Your task to perform on an android device: turn on bluetooth scan Image 0: 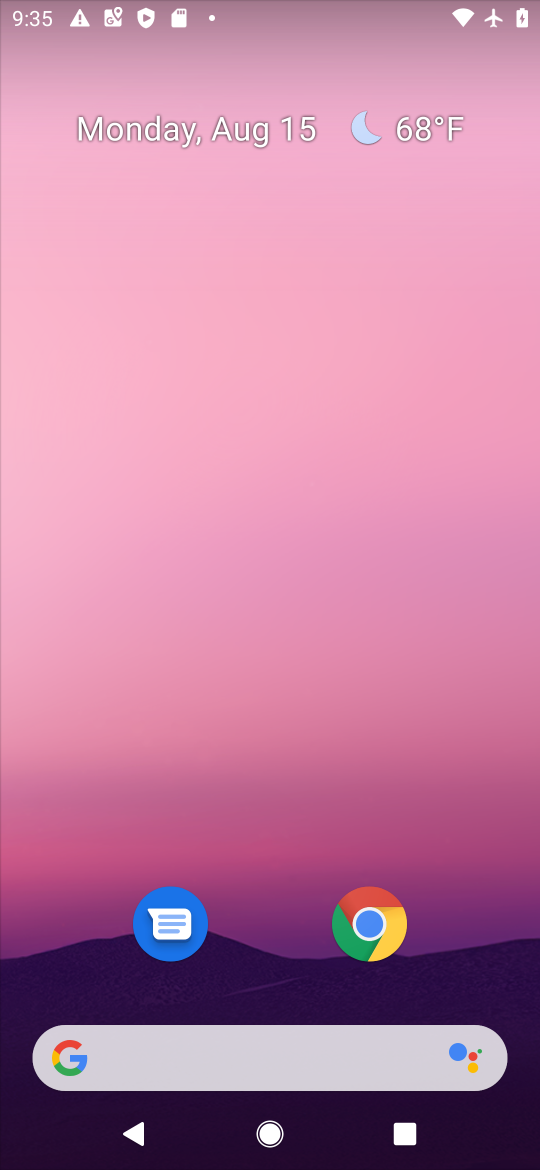
Step 0: drag from (513, 973) to (468, 183)
Your task to perform on an android device: turn on bluetooth scan Image 1: 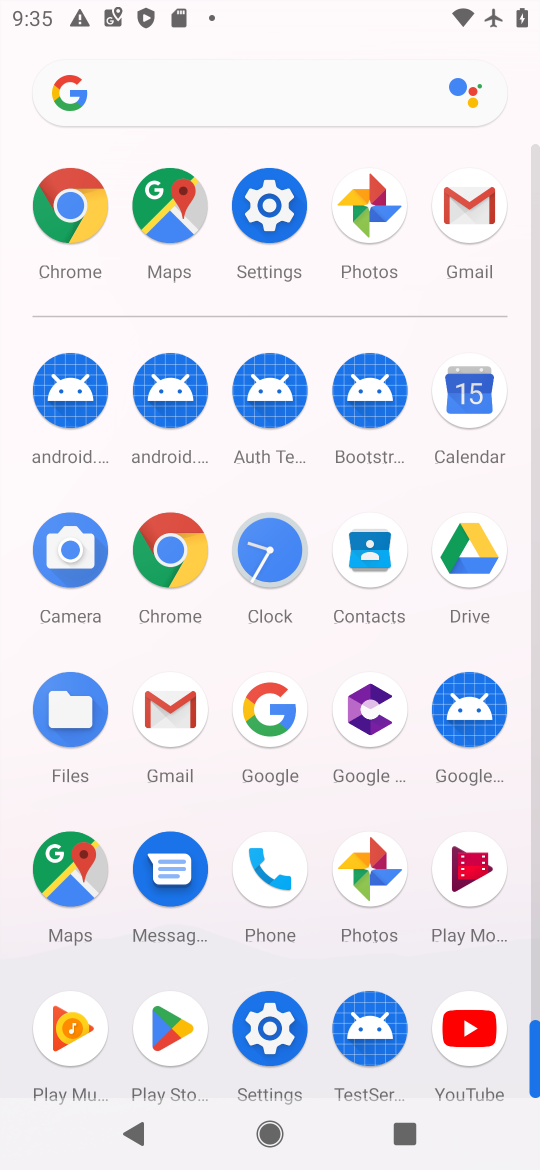
Step 1: click (272, 1029)
Your task to perform on an android device: turn on bluetooth scan Image 2: 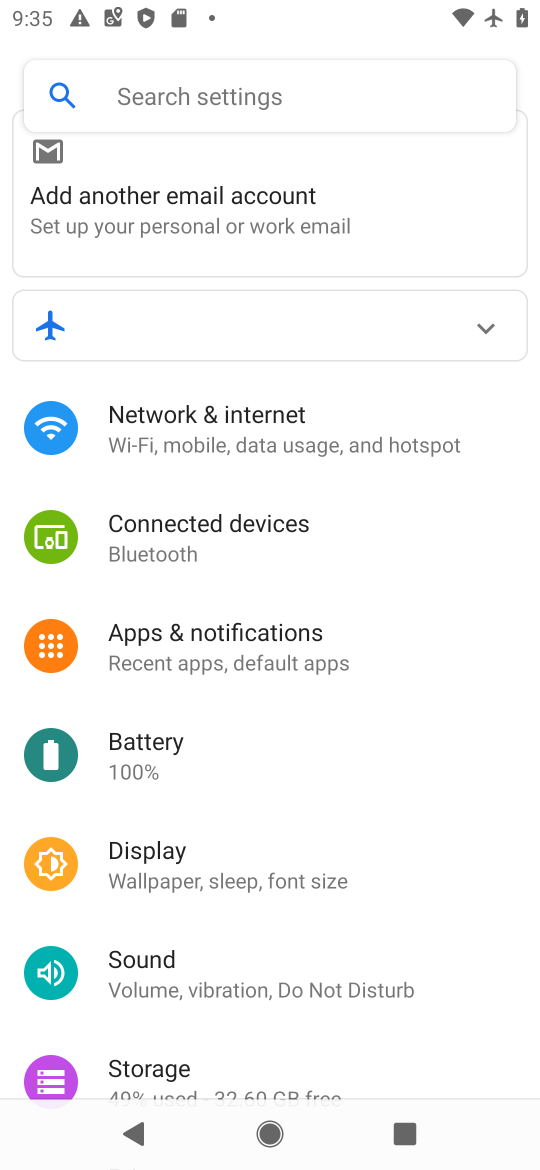
Step 2: drag from (369, 905) to (342, 549)
Your task to perform on an android device: turn on bluetooth scan Image 3: 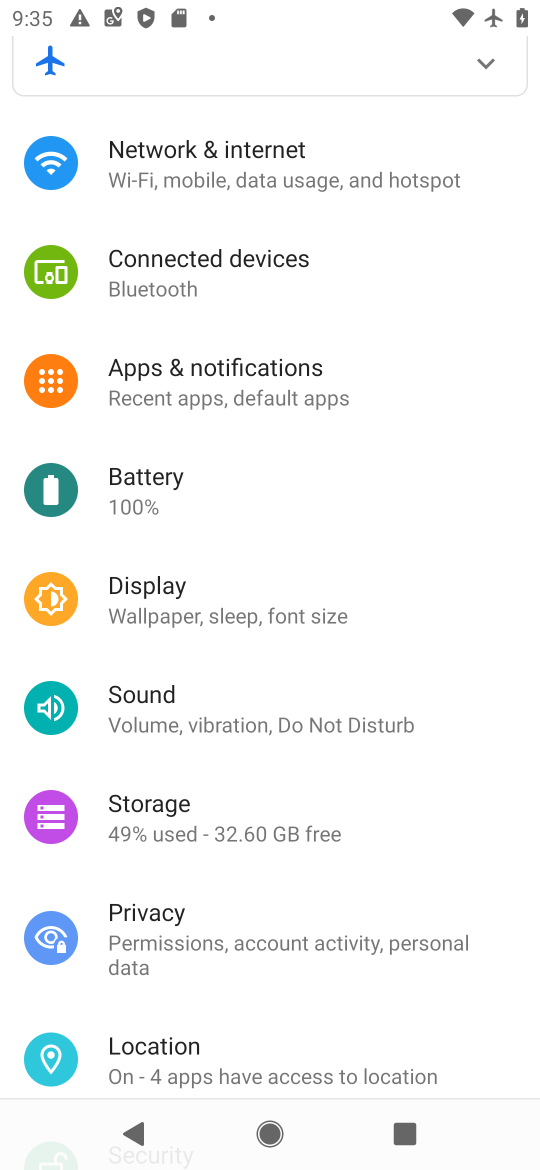
Step 3: drag from (450, 1013) to (427, 406)
Your task to perform on an android device: turn on bluetooth scan Image 4: 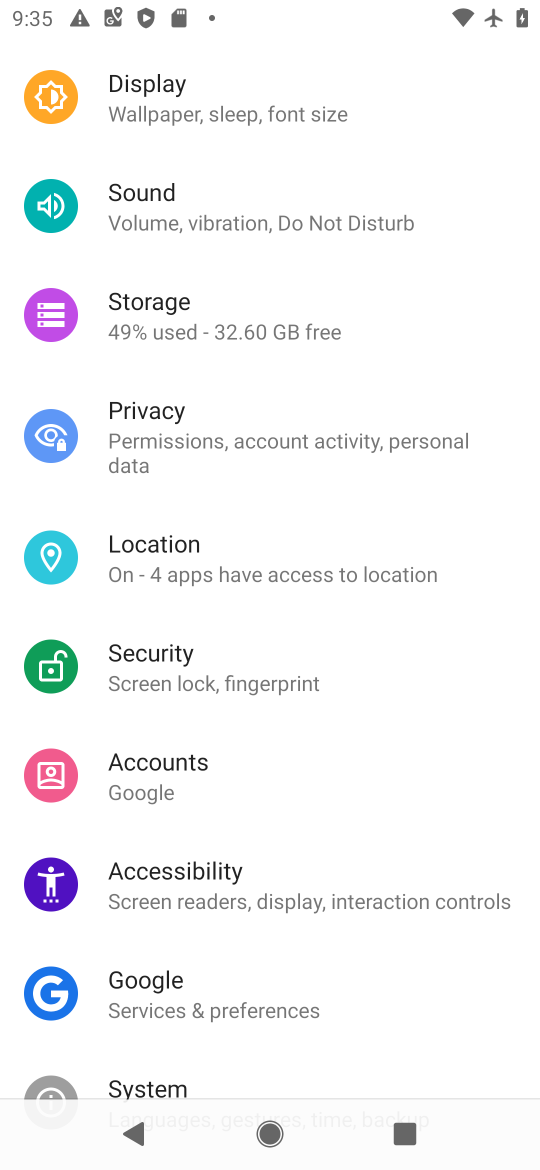
Step 4: click (145, 538)
Your task to perform on an android device: turn on bluetooth scan Image 5: 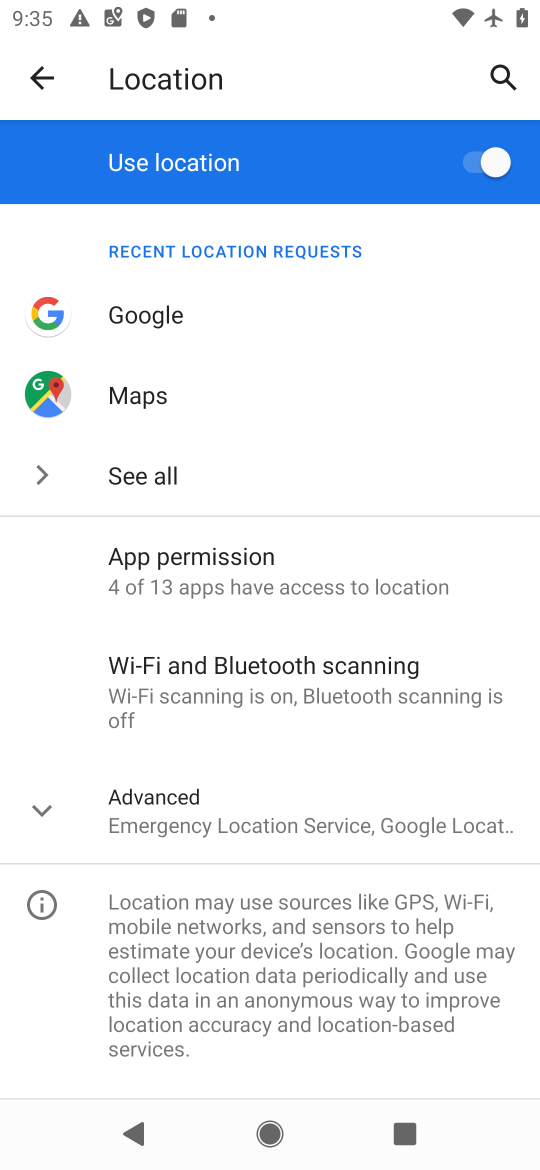
Step 5: click (38, 816)
Your task to perform on an android device: turn on bluetooth scan Image 6: 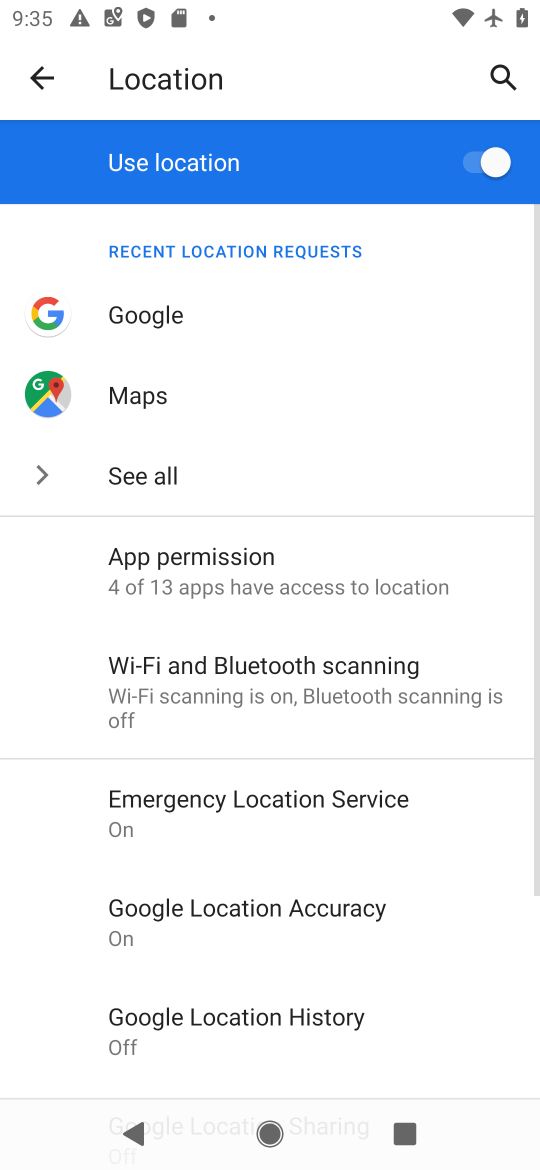
Step 6: click (251, 666)
Your task to perform on an android device: turn on bluetooth scan Image 7: 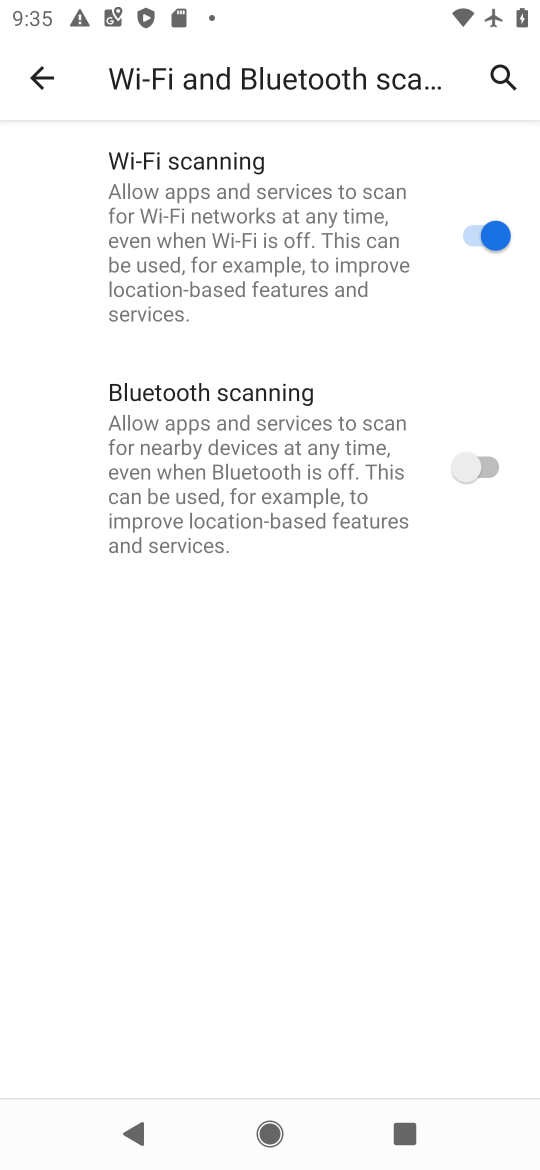
Step 7: click (488, 463)
Your task to perform on an android device: turn on bluetooth scan Image 8: 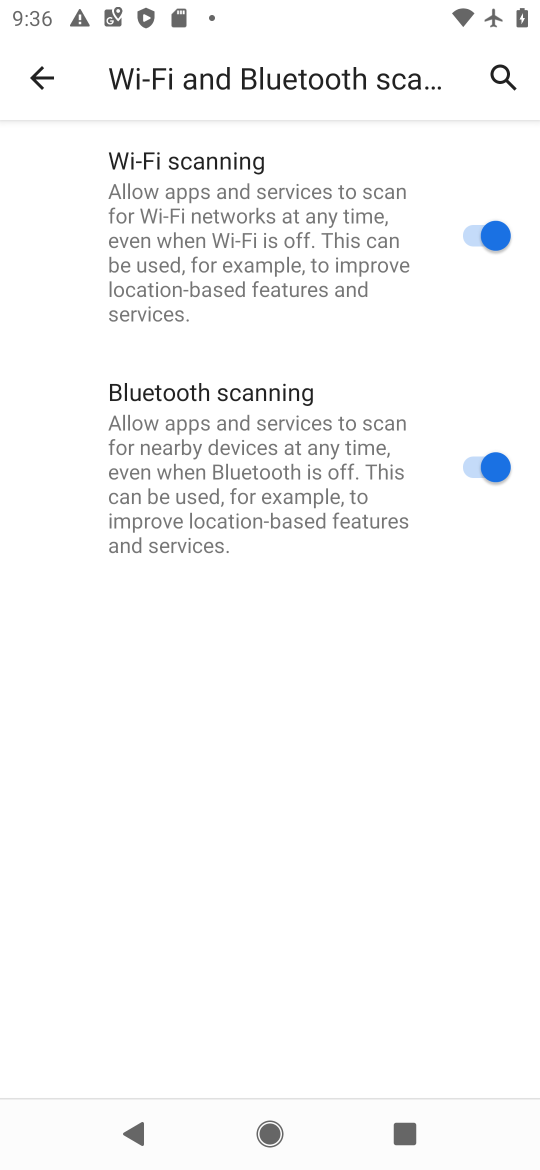
Step 8: task complete